Your task to perform on an android device: open app "Etsy: Buy & Sell Unique Items" (install if not already installed) and go to login screen Image 0: 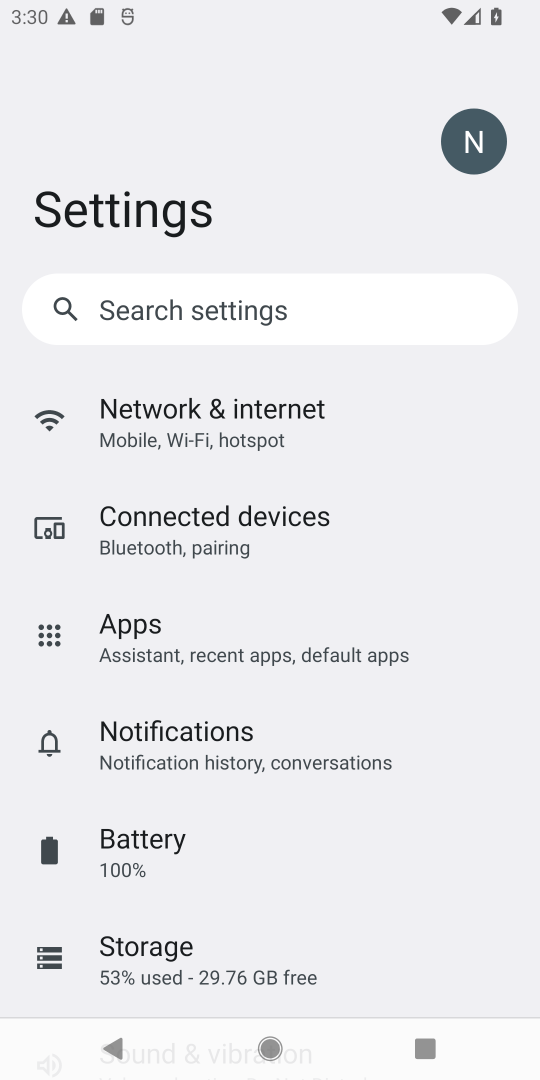
Step 0: press home button
Your task to perform on an android device: open app "Etsy: Buy & Sell Unique Items" (install if not already installed) and go to login screen Image 1: 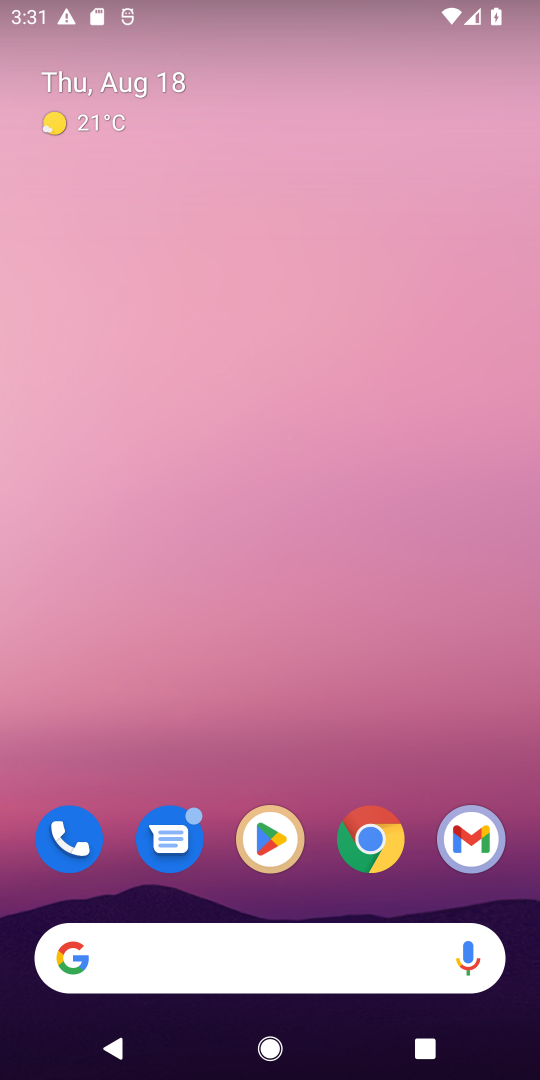
Step 1: click (262, 844)
Your task to perform on an android device: open app "Etsy: Buy & Sell Unique Items" (install if not already installed) and go to login screen Image 2: 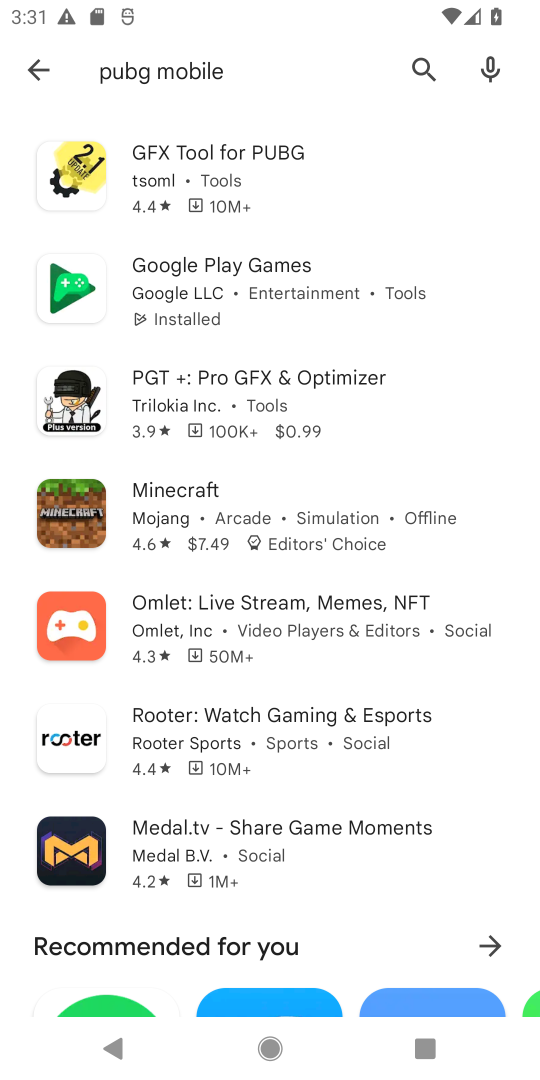
Step 2: click (58, 77)
Your task to perform on an android device: open app "Etsy: Buy & Sell Unique Items" (install if not already installed) and go to login screen Image 3: 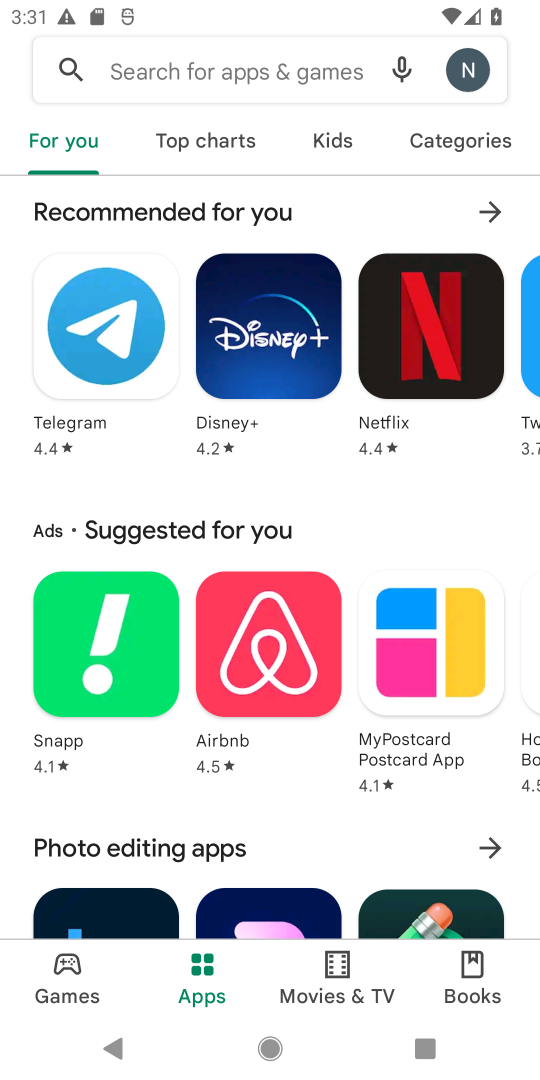
Step 3: click (149, 87)
Your task to perform on an android device: open app "Etsy: Buy & Sell Unique Items" (install if not already installed) and go to login screen Image 4: 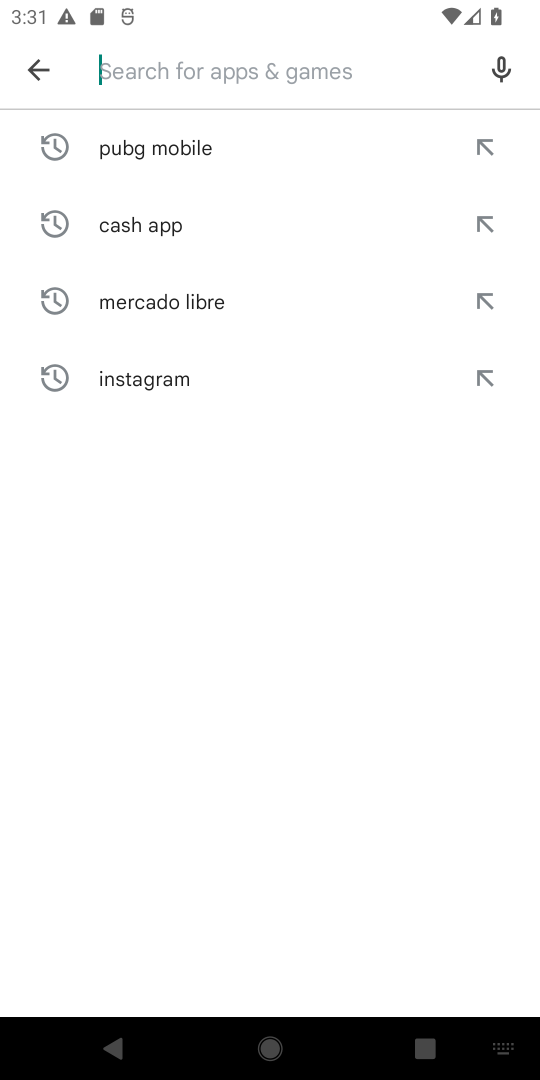
Step 4: type "Etsy: Buy & Sell Unique Item"
Your task to perform on an android device: open app "Etsy: Buy & Sell Unique Items" (install if not already installed) and go to login screen Image 5: 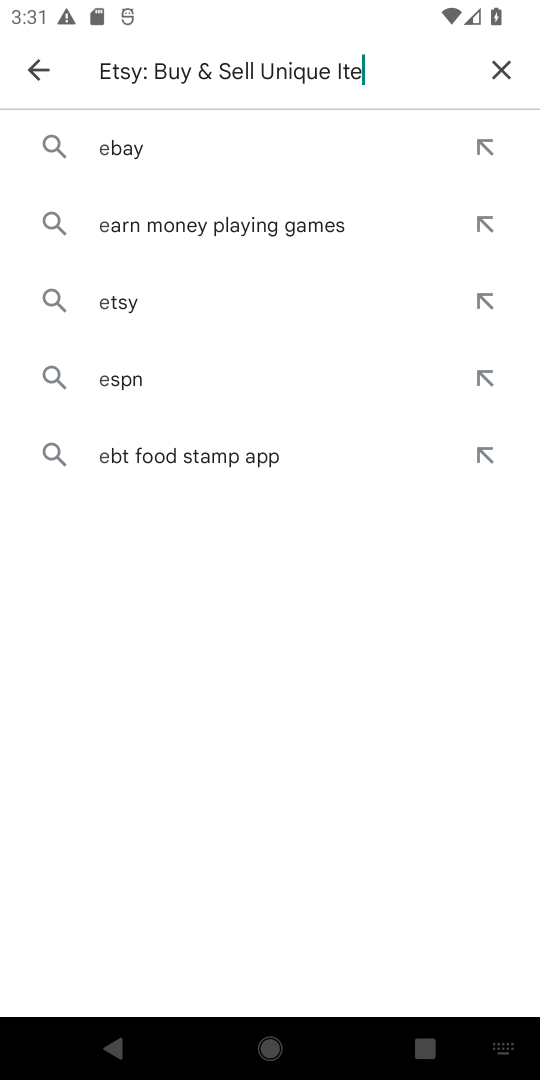
Step 5: type ""
Your task to perform on an android device: open app "Etsy: Buy & Sell Unique Items" (install if not already installed) and go to login screen Image 6: 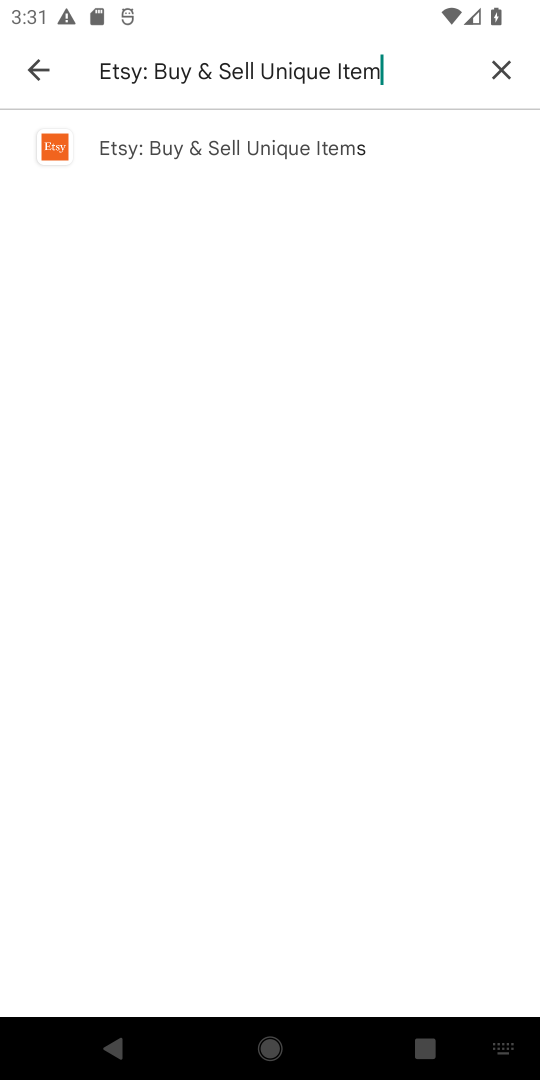
Step 6: click (285, 153)
Your task to perform on an android device: open app "Etsy: Buy & Sell Unique Items" (install if not already installed) and go to login screen Image 7: 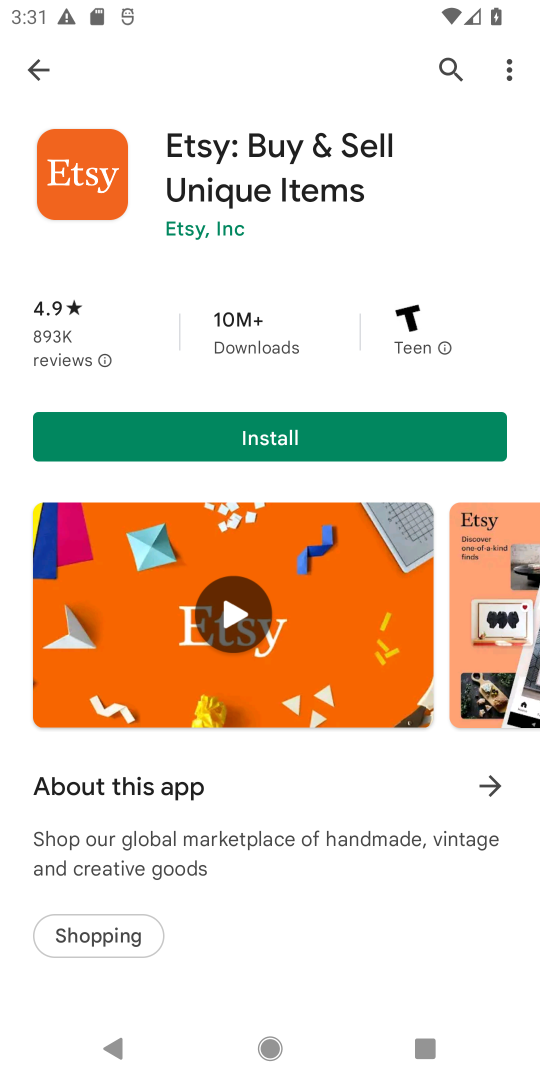
Step 7: click (364, 410)
Your task to perform on an android device: open app "Etsy: Buy & Sell Unique Items" (install if not already installed) and go to login screen Image 8: 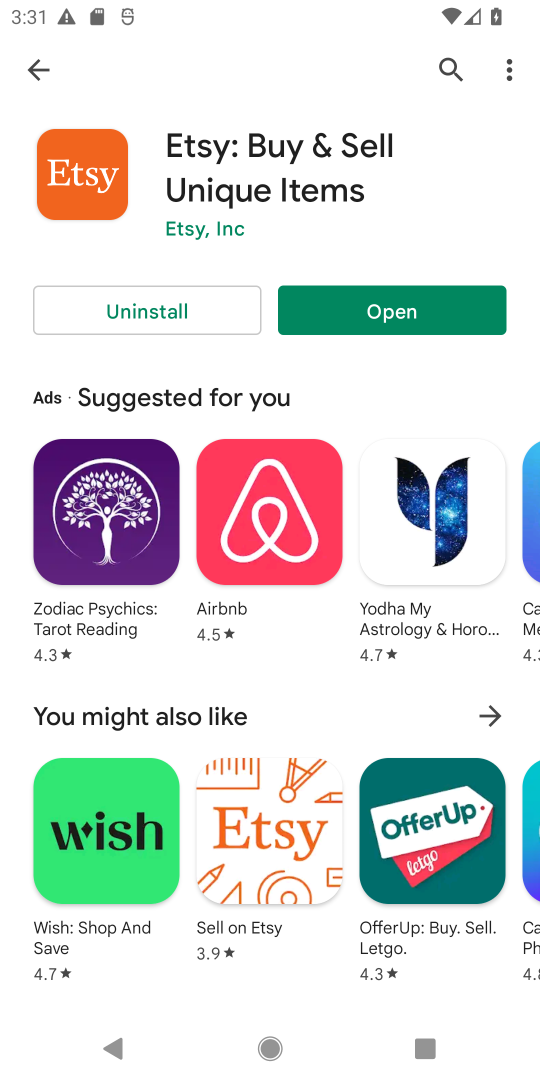
Step 8: click (353, 309)
Your task to perform on an android device: open app "Etsy: Buy & Sell Unique Items" (install if not already installed) and go to login screen Image 9: 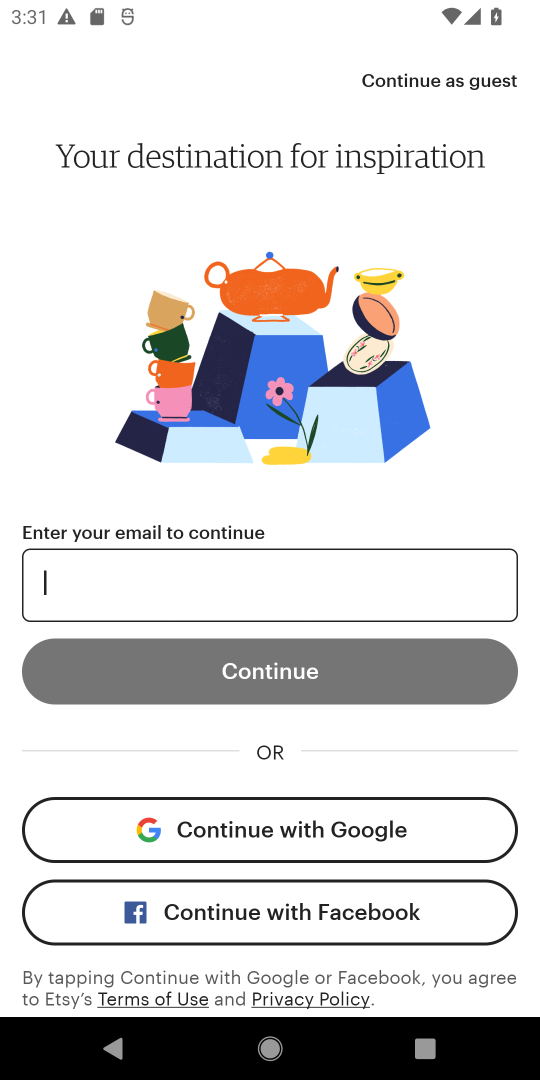
Step 9: task complete